Your task to perform on an android device: turn off translation in the chrome app Image 0: 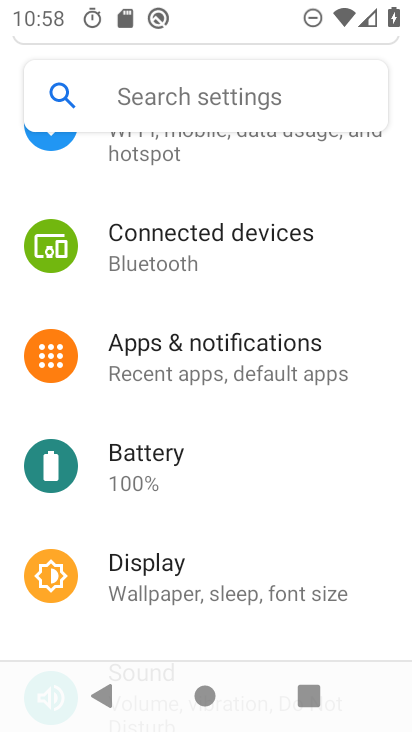
Step 0: press home button
Your task to perform on an android device: turn off translation in the chrome app Image 1: 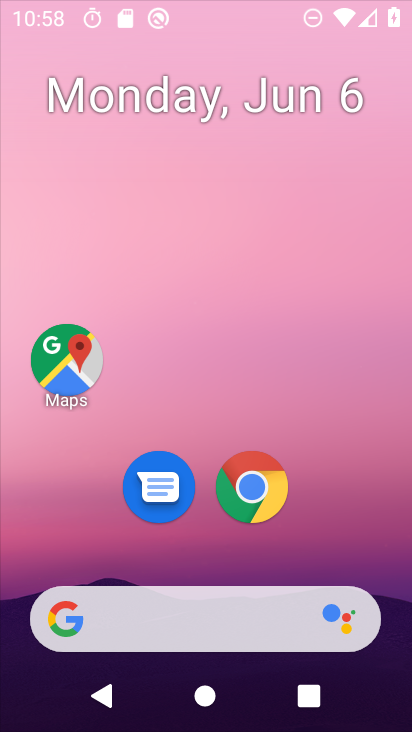
Step 1: drag from (391, 657) to (256, 11)
Your task to perform on an android device: turn off translation in the chrome app Image 2: 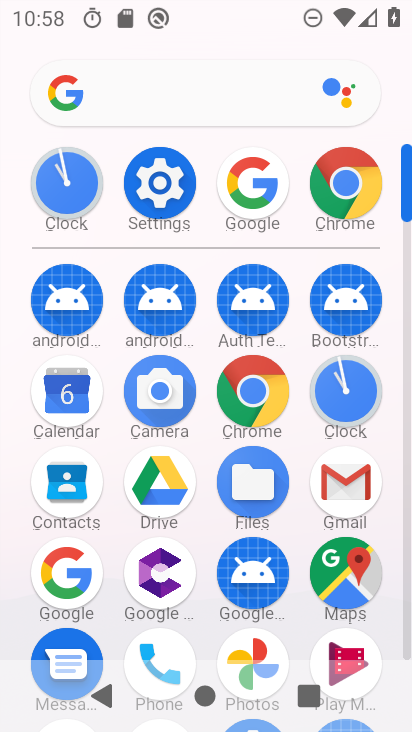
Step 2: click (257, 415)
Your task to perform on an android device: turn off translation in the chrome app Image 3: 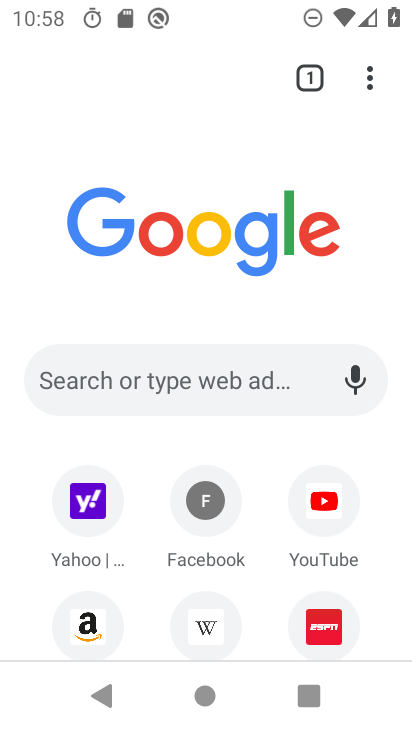
Step 3: click (370, 73)
Your task to perform on an android device: turn off translation in the chrome app Image 4: 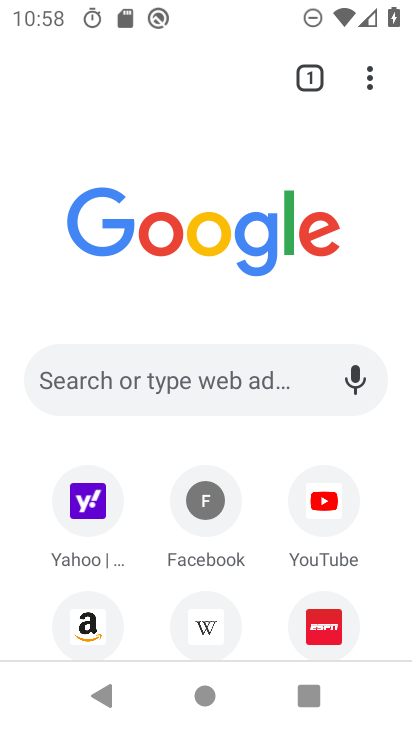
Step 4: click (370, 73)
Your task to perform on an android device: turn off translation in the chrome app Image 5: 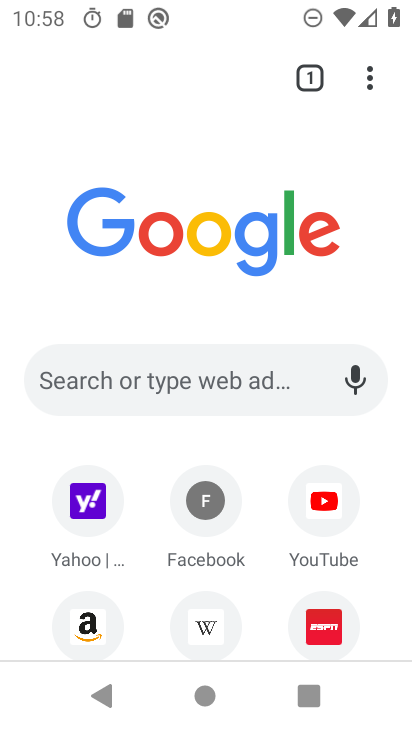
Step 5: click (364, 72)
Your task to perform on an android device: turn off translation in the chrome app Image 6: 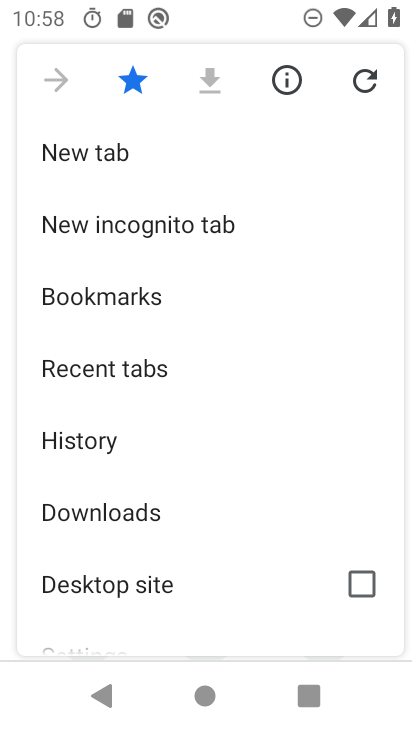
Step 6: drag from (136, 590) to (151, 161)
Your task to perform on an android device: turn off translation in the chrome app Image 7: 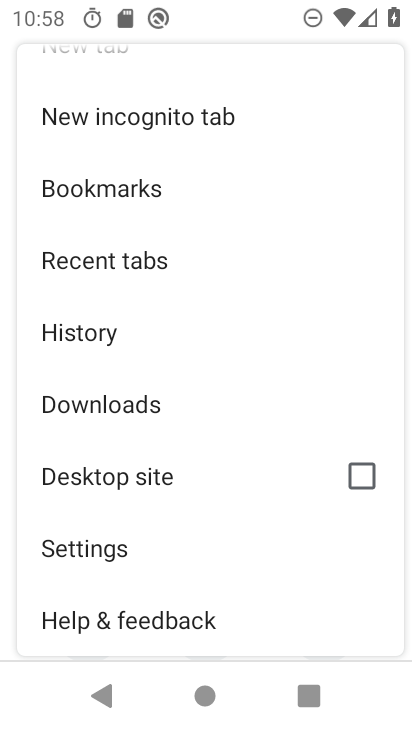
Step 7: click (142, 548)
Your task to perform on an android device: turn off translation in the chrome app Image 8: 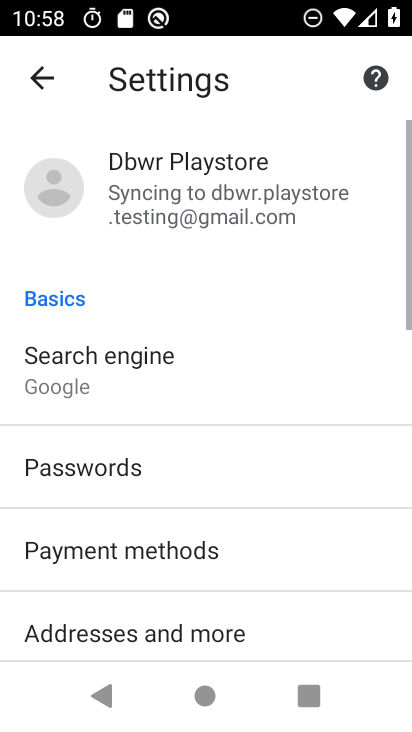
Step 8: drag from (169, 585) to (157, 182)
Your task to perform on an android device: turn off translation in the chrome app Image 9: 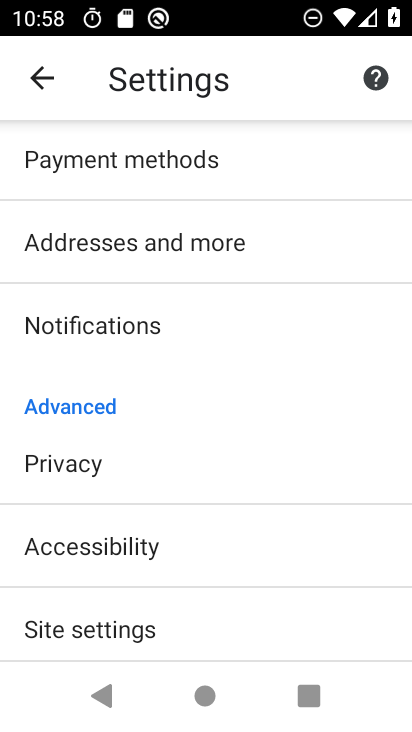
Step 9: drag from (188, 598) to (194, 208)
Your task to perform on an android device: turn off translation in the chrome app Image 10: 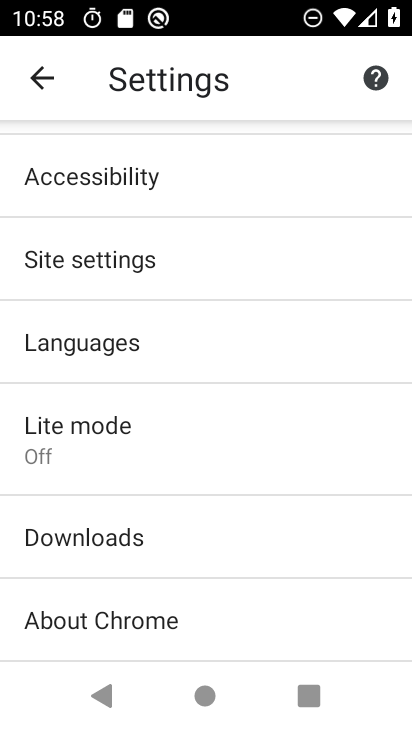
Step 10: click (149, 344)
Your task to perform on an android device: turn off translation in the chrome app Image 11: 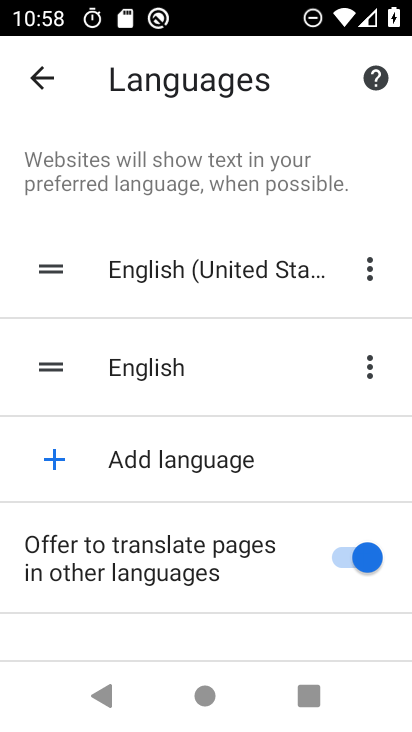
Step 11: click (303, 567)
Your task to perform on an android device: turn off translation in the chrome app Image 12: 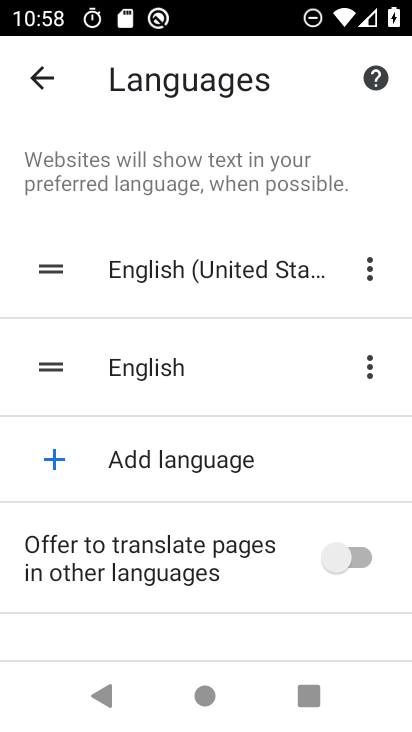
Step 12: task complete